Your task to perform on an android device: turn on javascript in the chrome app Image 0: 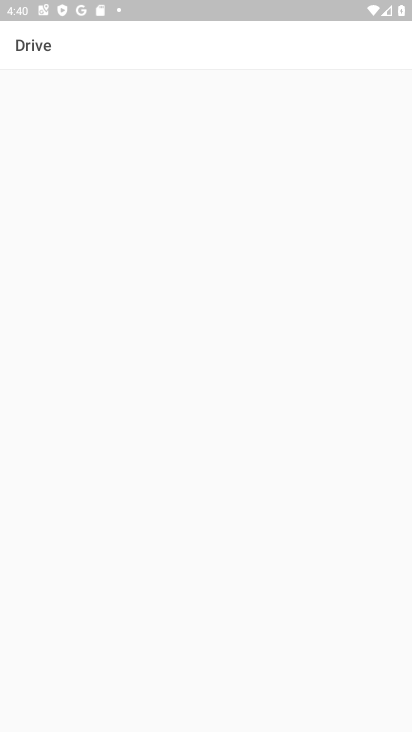
Step 0: press home button
Your task to perform on an android device: turn on javascript in the chrome app Image 1: 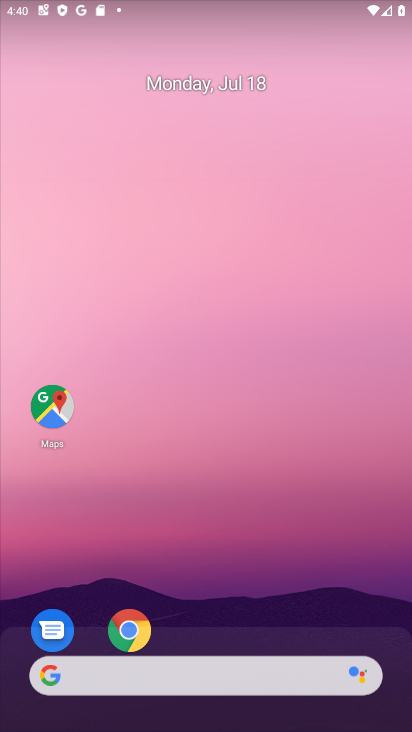
Step 1: click (129, 624)
Your task to perform on an android device: turn on javascript in the chrome app Image 2: 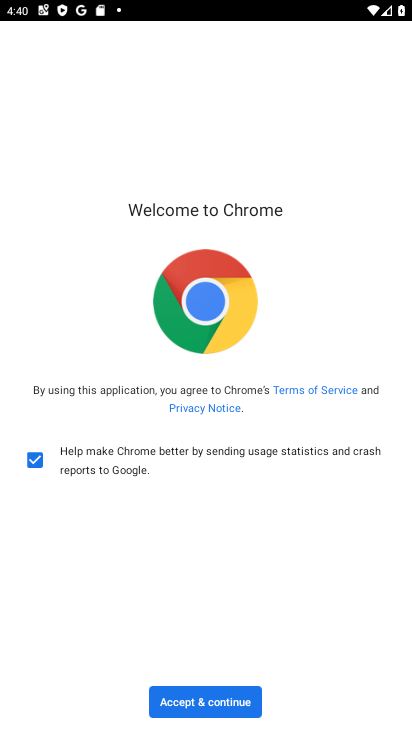
Step 2: click (206, 704)
Your task to perform on an android device: turn on javascript in the chrome app Image 3: 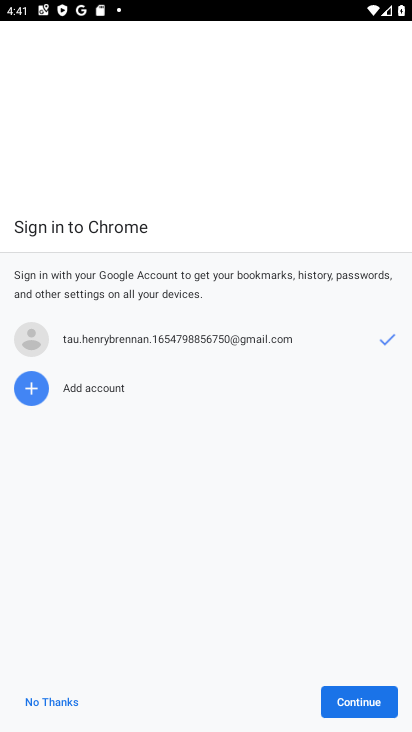
Step 3: click (353, 703)
Your task to perform on an android device: turn on javascript in the chrome app Image 4: 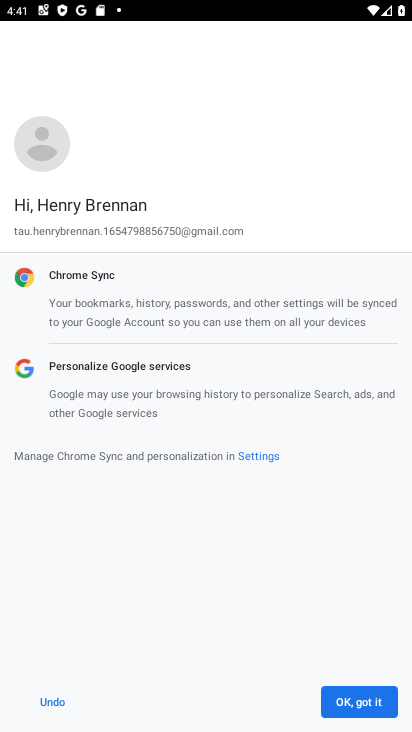
Step 4: click (366, 709)
Your task to perform on an android device: turn on javascript in the chrome app Image 5: 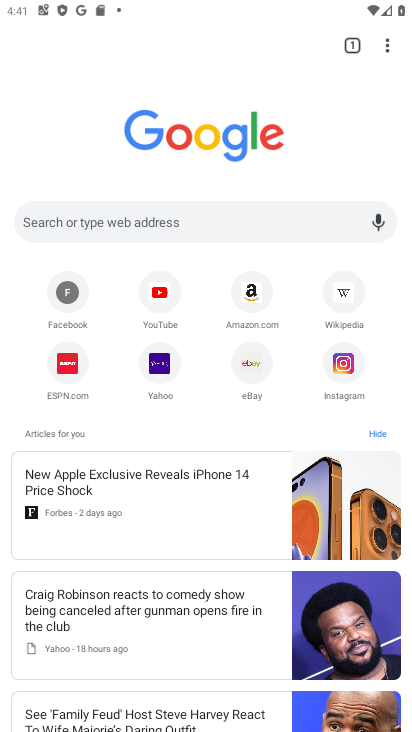
Step 5: click (390, 34)
Your task to perform on an android device: turn on javascript in the chrome app Image 6: 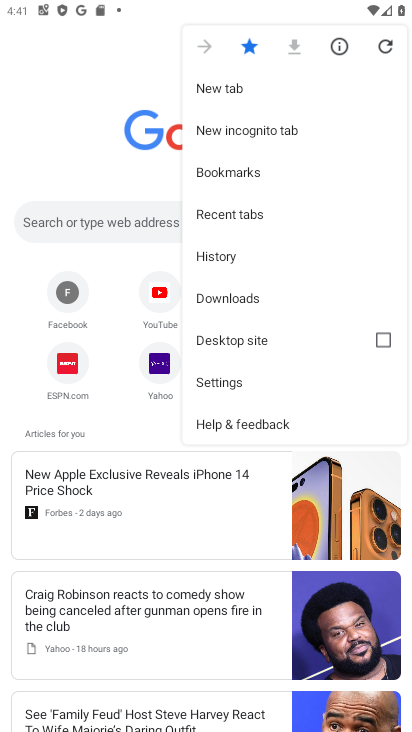
Step 6: click (247, 378)
Your task to perform on an android device: turn on javascript in the chrome app Image 7: 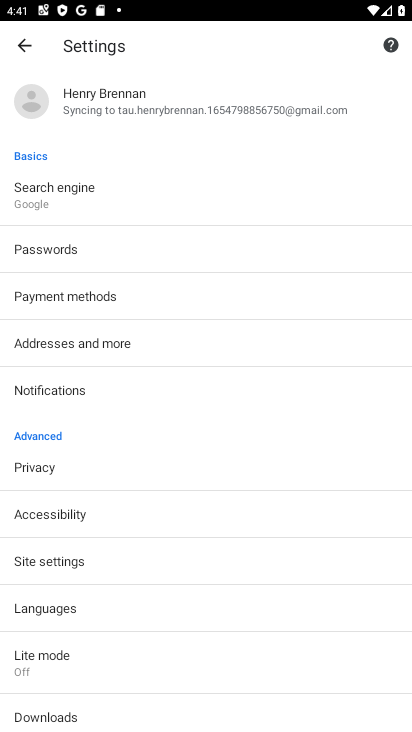
Step 7: click (97, 563)
Your task to perform on an android device: turn on javascript in the chrome app Image 8: 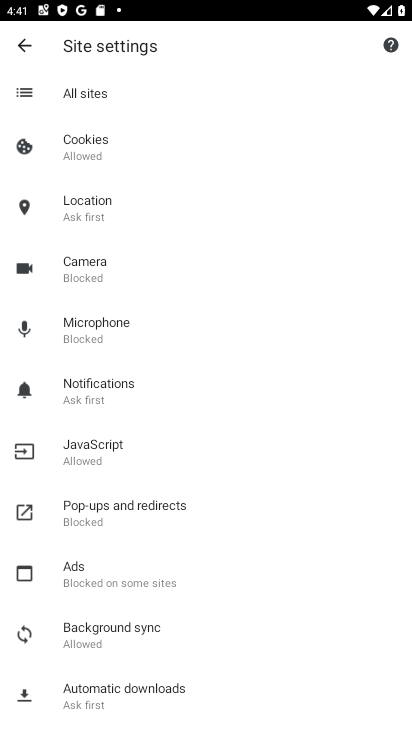
Step 8: click (108, 455)
Your task to perform on an android device: turn on javascript in the chrome app Image 9: 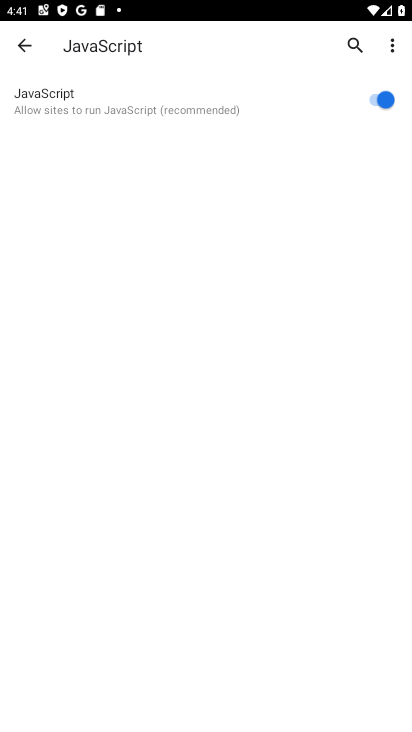
Step 9: task complete